Your task to perform on an android device: check storage Image 0: 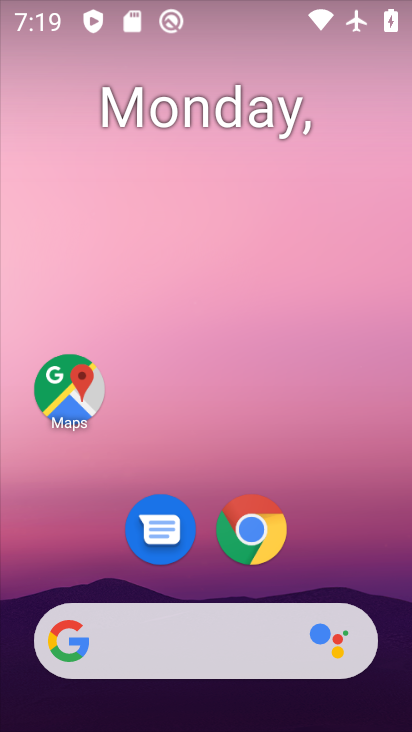
Step 0: drag from (11, 253) to (404, 306)
Your task to perform on an android device: check storage Image 1: 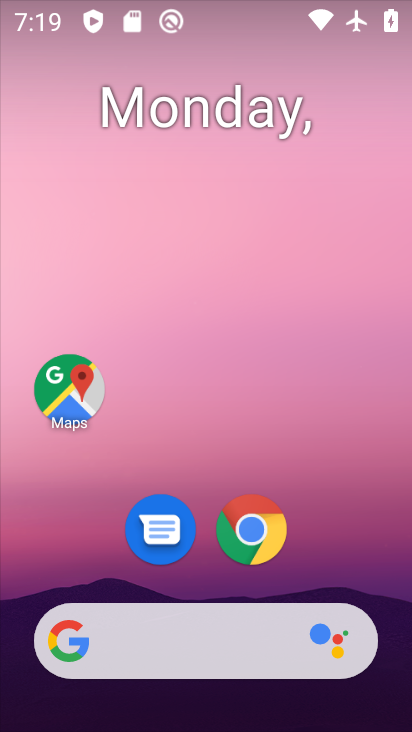
Step 1: drag from (324, 506) to (248, 18)
Your task to perform on an android device: check storage Image 2: 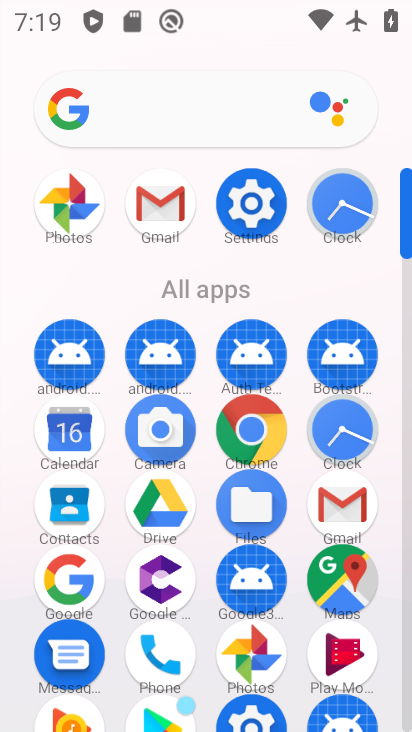
Step 2: click (253, 202)
Your task to perform on an android device: check storage Image 3: 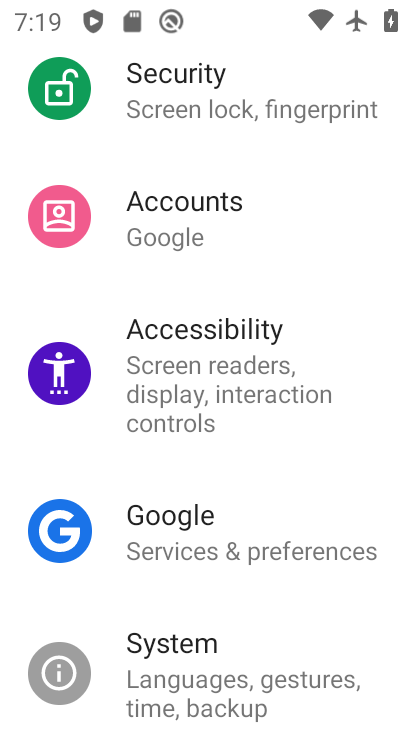
Step 3: drag from (230, 569) to (147, 227)
Your task to perform on an android device: check storage Image 4: 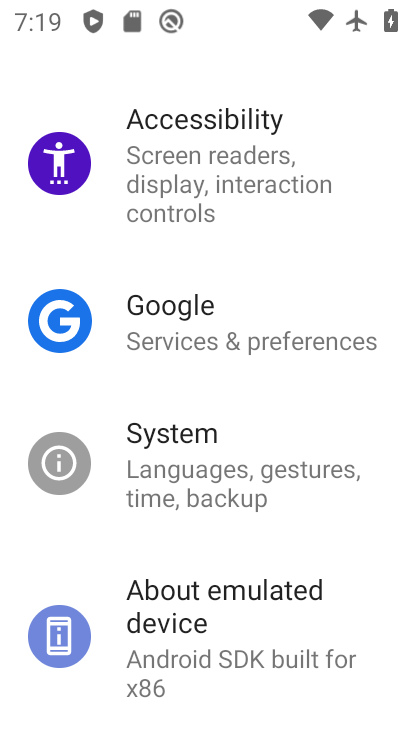
Step 4: drag from (253, 271) to (320, 648)
Your task to perform on an android device: check storage Image 5: 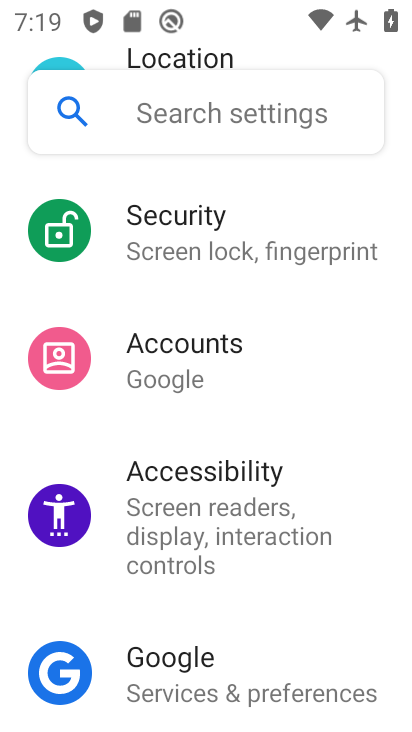
Step 5: drag from (209, 296) to (225, 538)
Your task to perform on an android device: check storage Image 6: 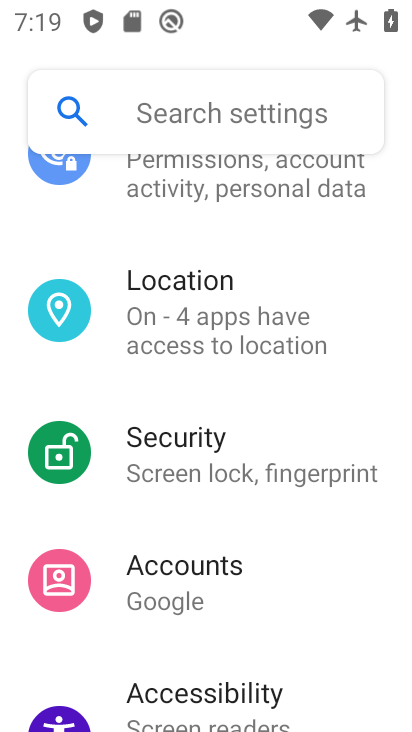
Step 6: drag from (214, 235) to (342, 702)
Your task to perform on an android device: check storage Image 7: 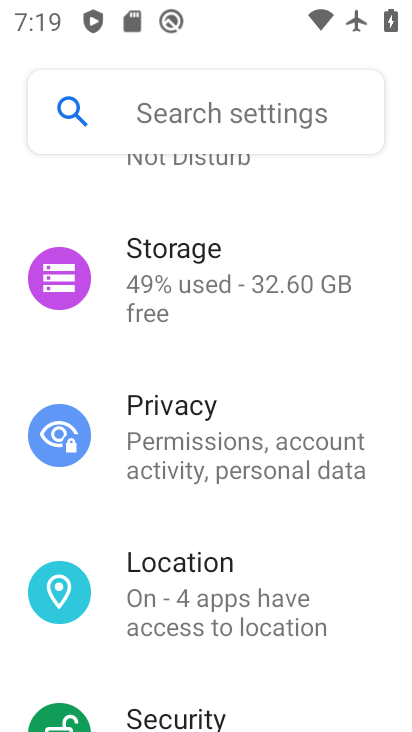
Step 7: click (173, 248)
Your task to perform on an android device: check storage Image 8: 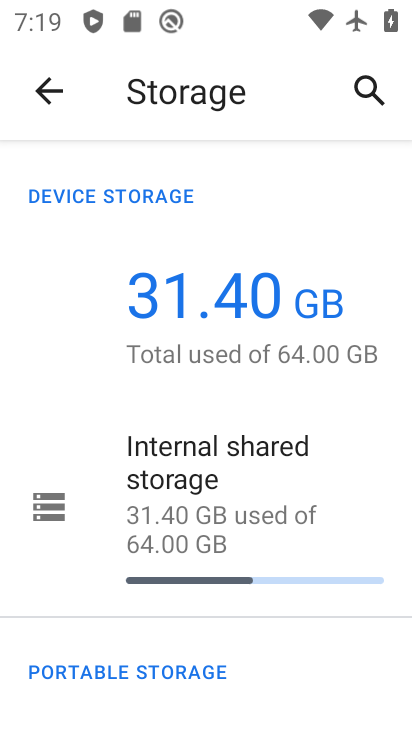
Step 8: task complete